Your task to perform on an android device: find snoozed emails in the gmail app Image 0: 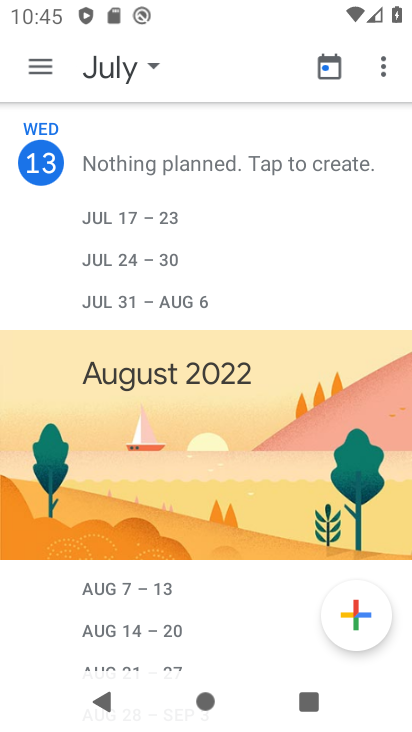
Step 0: press home button
Your task to perform on an android device: find snoozed emails in the gmail app Image 1: 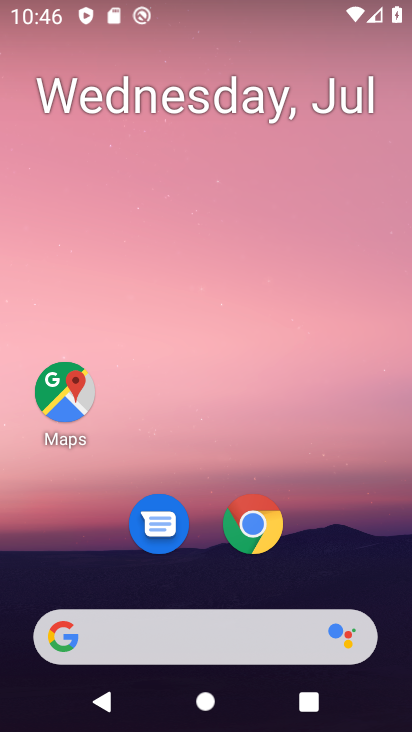
Step 1: drag from (156, 621) to (276, 105)
Your task to perform on an android device: find snoozed emails in the gmail app Image 2: 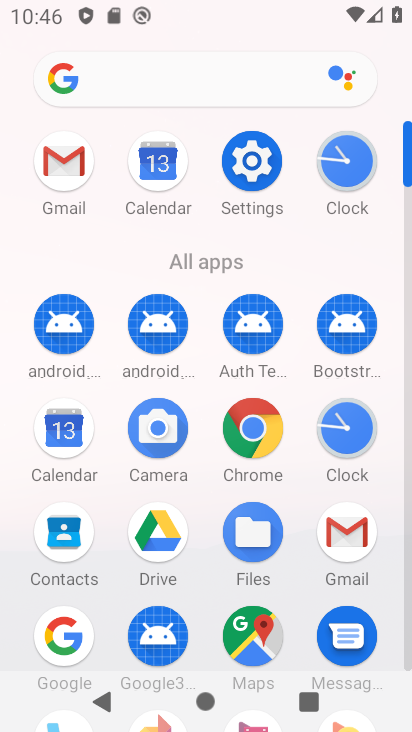
Step 2: click (72, 170)
Your task to perform on an android device: find snoozed emails in the gmail app Image 3: 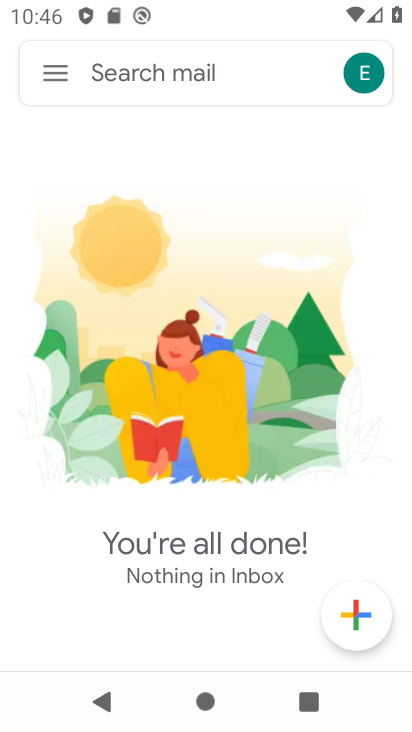
Step 3: click (52, 71)
Your task to perform on an android device: find snoozed emails in the gmail app Image 4: 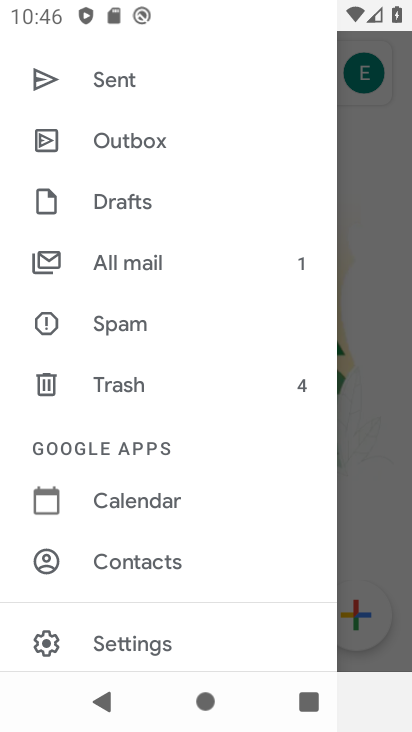
Step 4: drag from (197, 142) to (185, 554)
Your task to perform on an android device: find snoozed emails in the gmail app Image 5: 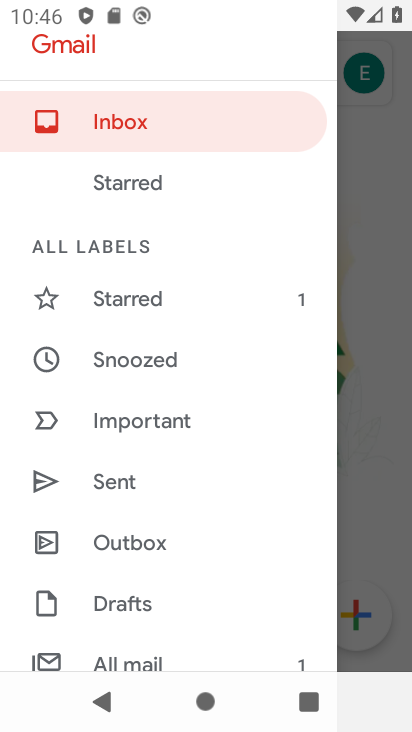
Step 5: click (141, 366)
Your task to perform on an android device: find snoozed emails in the gmail app Image 6: 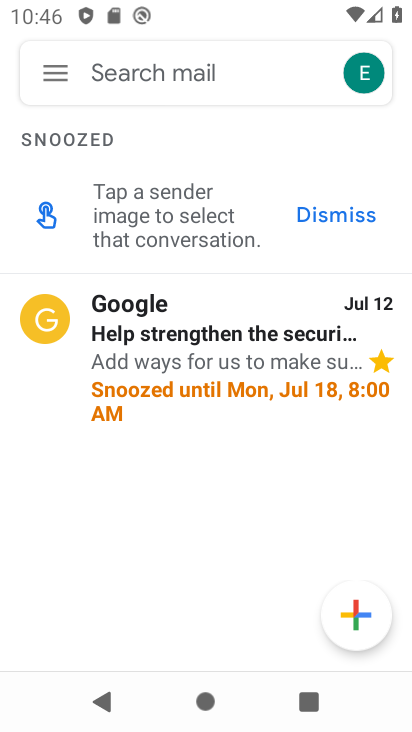
Step 6: task complete